Your task to perform on an android device: Open Android settings Image 0: 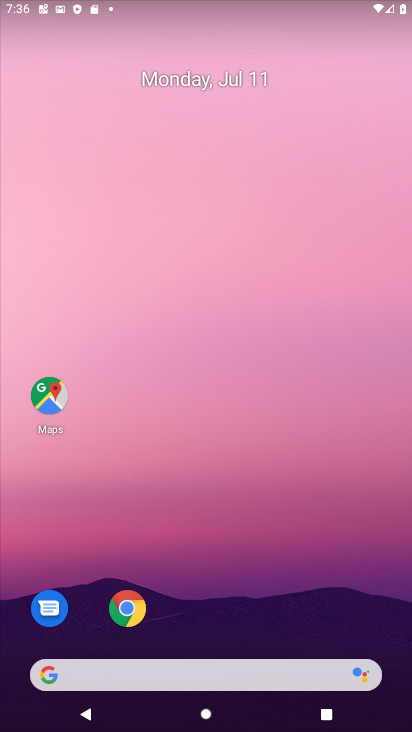
Step 0: drag from (230, 632) to (230, 139)
Your task to perform on an android device: Open Android settings Image 1: 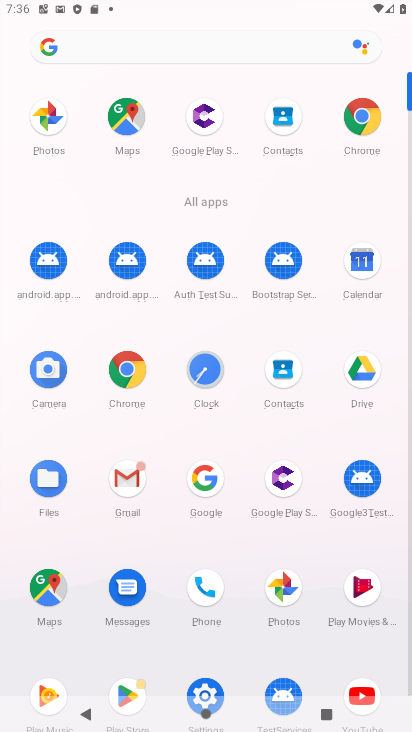
Step 1: click (197, 680)
Your task to perform on an android device: Open Android settings Image 2: 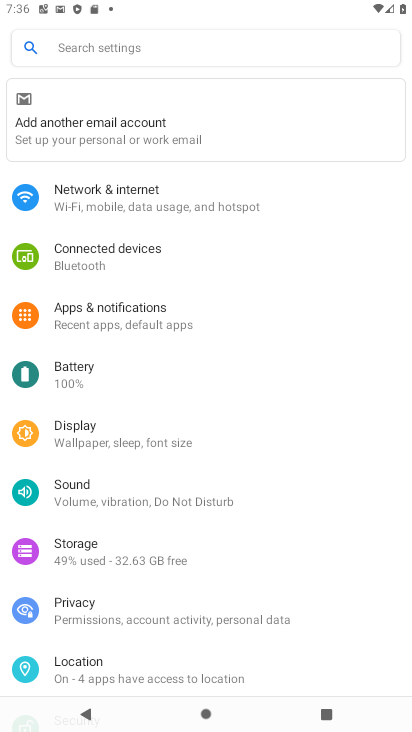
Step 2: drag from (168, 623) to (107, 131)
Your task to perform on an android device: Open Android settings Image 3: 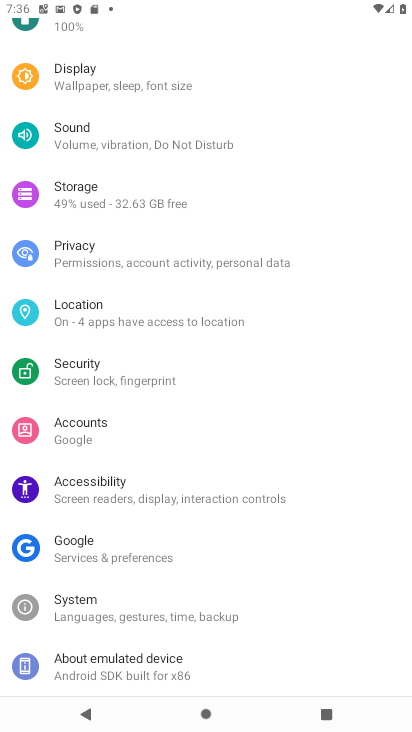
Step 3: click (189, 648)
Your task to perform on an android device: Open Android settings Image 4: 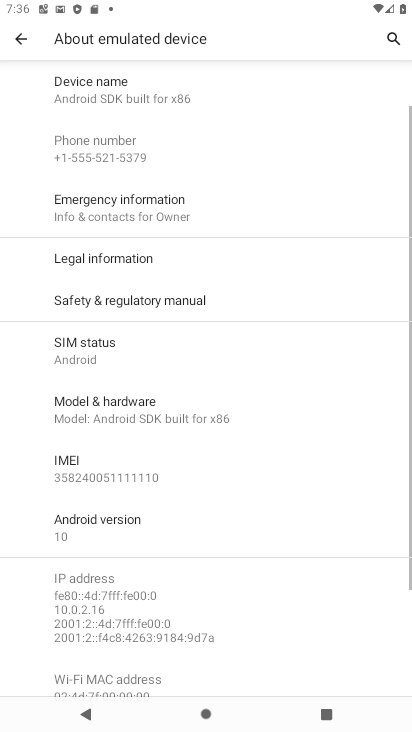
Step 4: task complete